Your task to perform on an android device: Open Android settings Image 0: 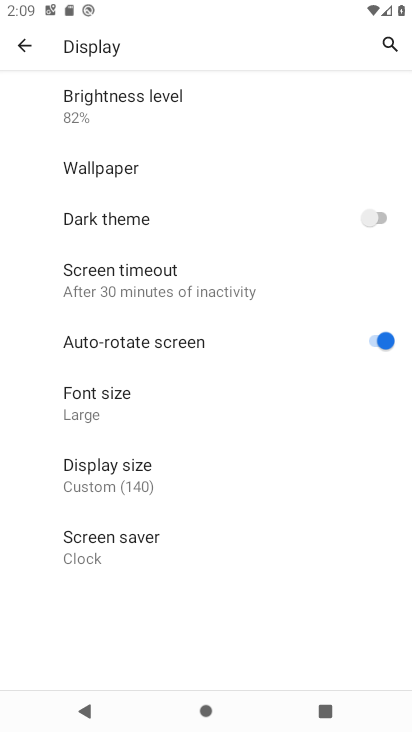
Step 0: press home button
Your task to perform on an android device: Open Android settings Image 1: 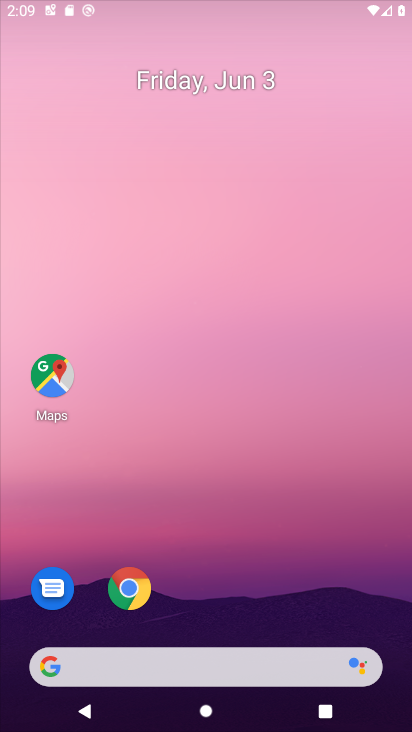
Step 1: drag from (234, 655) to (277, 54)
Your task to perform on an android device: Open Android settings Image 2: 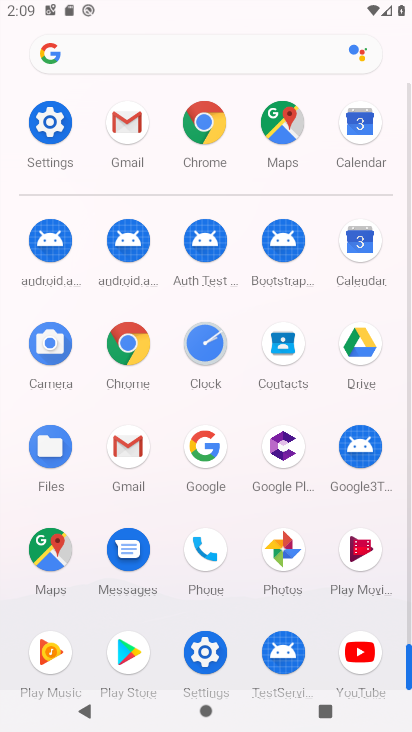
Step 2: click (57, 153)
Your task to perform on an android device: Open Android settings Image 3: 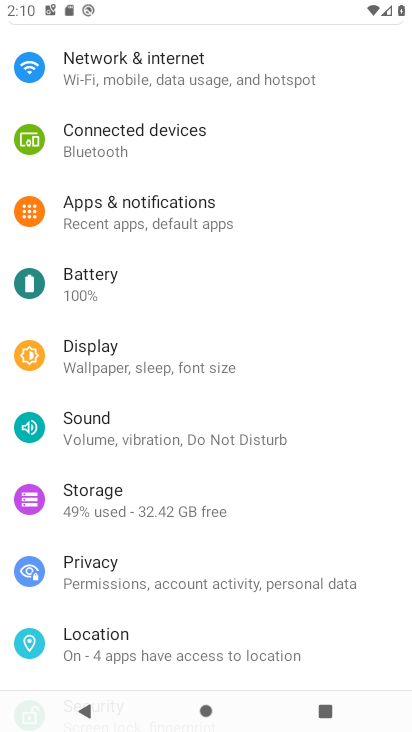
Step 3: drag from (169, 531) to (213, 16)
Your task to perform on an android device: Open Android settings Image 4: 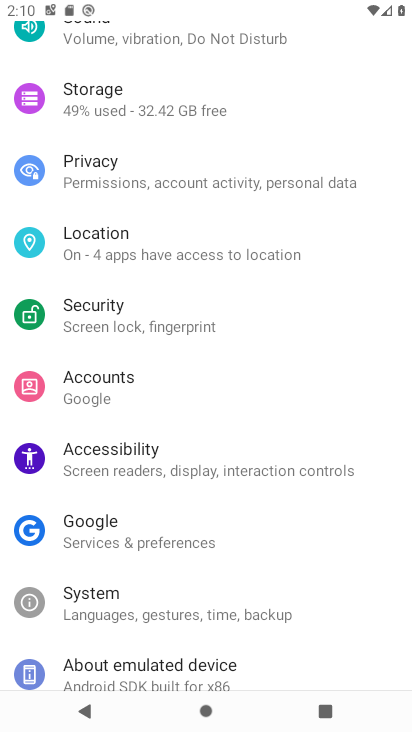
Step 4: drag from (179, 610) to (267, 169)
Your task to perform on an android device: Open Android settings Image 5: 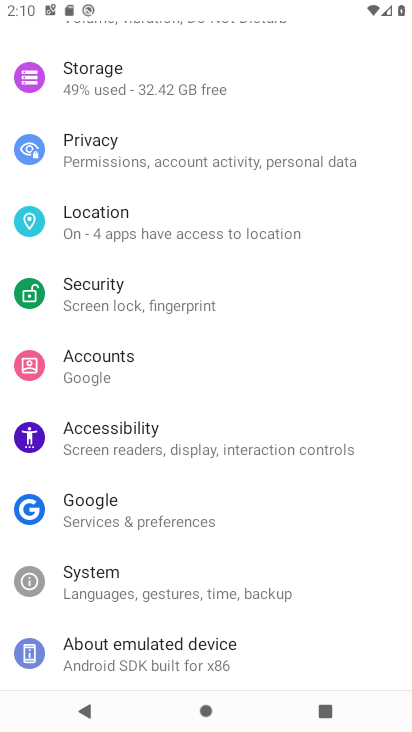
Step 5: click (227, 646)
Your task to perform on an android device: Open Android settings Image 6: 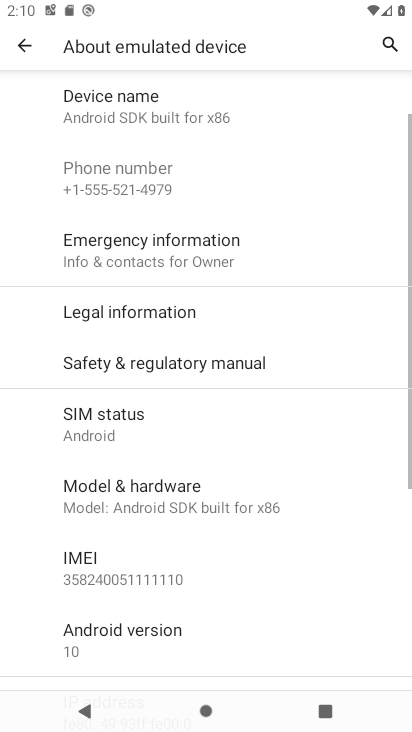
Step 6: drag from (201, 351) to (197, 543)
Your task to perform on an android device: Open Android settings Image 7: 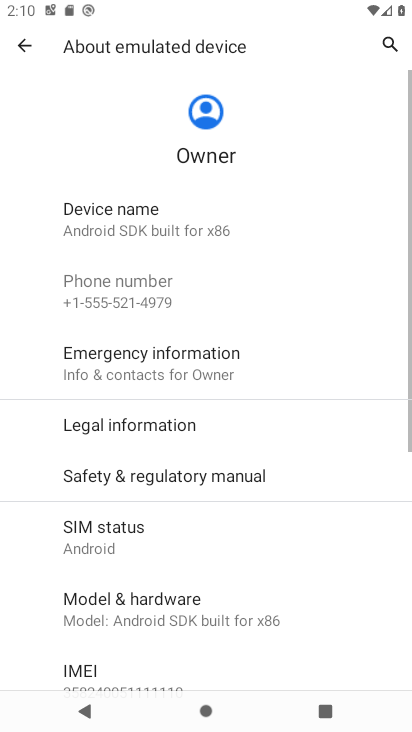
Step 7: drag from (207, 452) to (281, 45)
Your task to perform on an android device: Open Android settings Image 8: 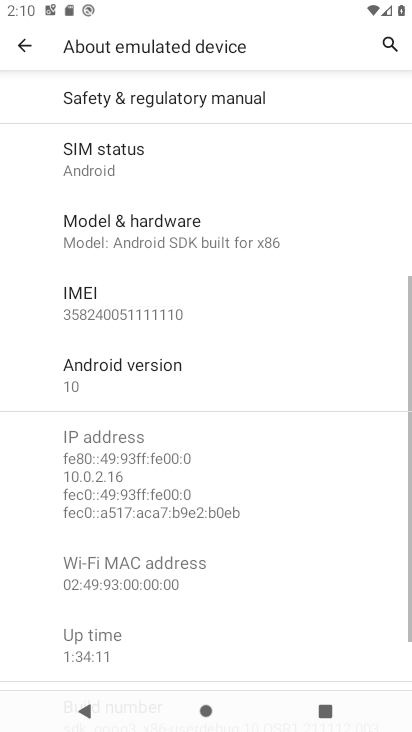
Step 8: click (183, 373)
Your task to perform on an android device: Open Android settings Image 9: 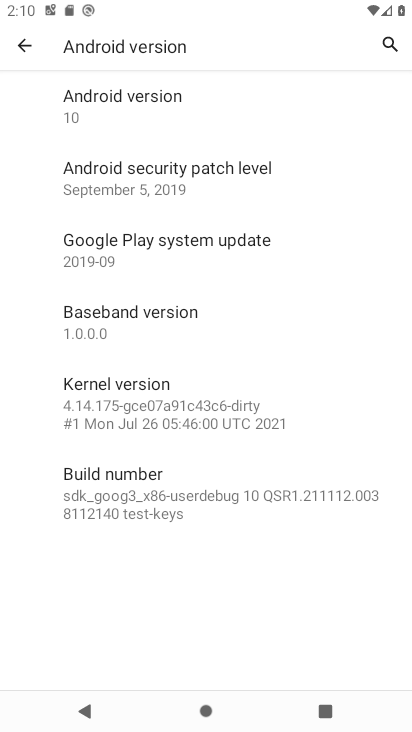
Step 9: task complete